Your task to perform on an android device: Play the last video I watched on Youtube Image 0: 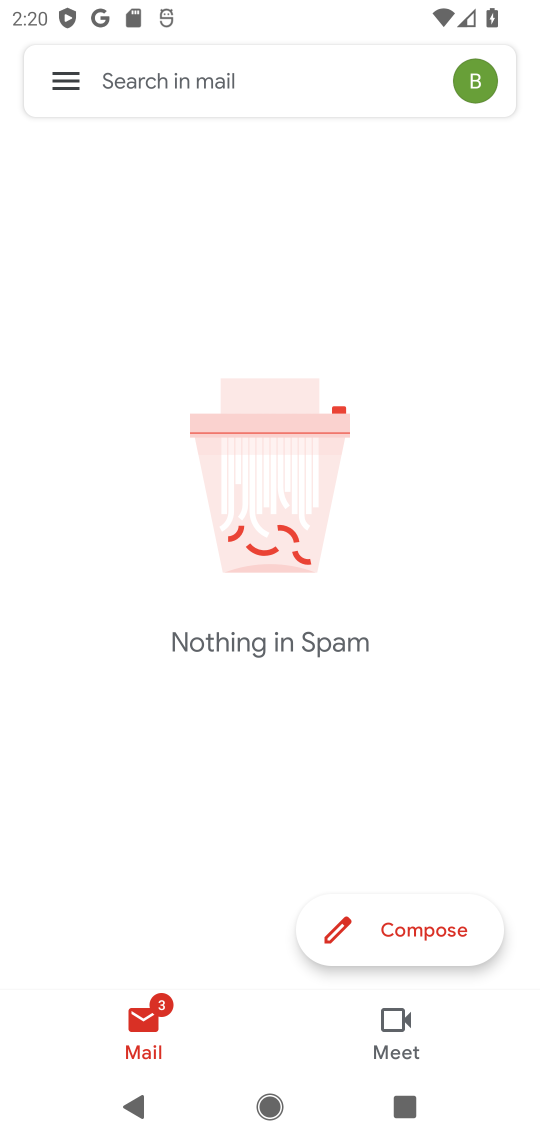
Step 0: press home button
Your task to perform on an android device: Play the last video I watched on Youtube Image 1: 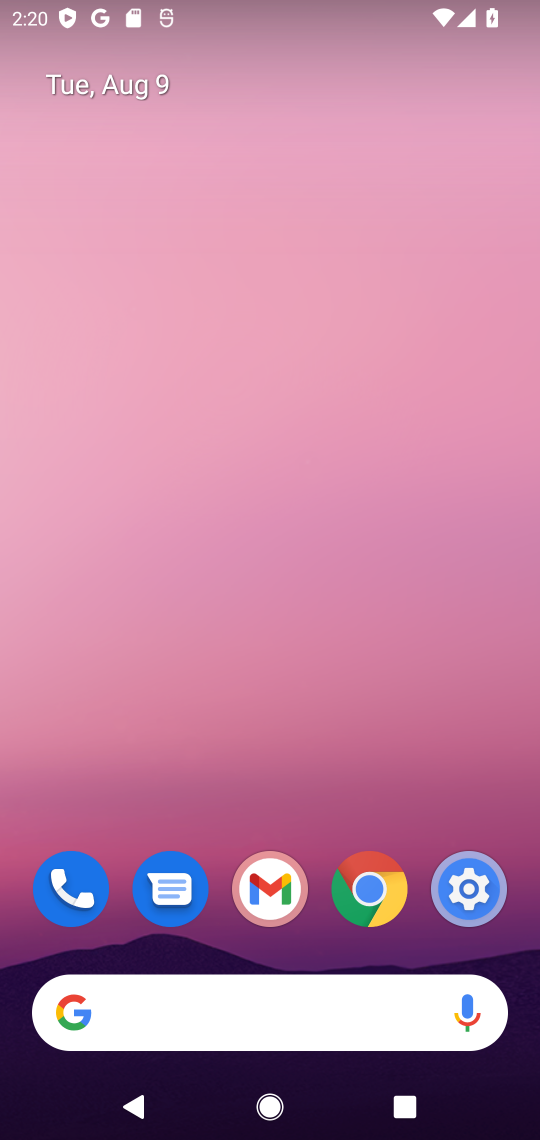
Step 1: drag from (302, 774) to (338, 2)
Your task to perform on an android device: Play the last video I watched on Youtube Image 2: 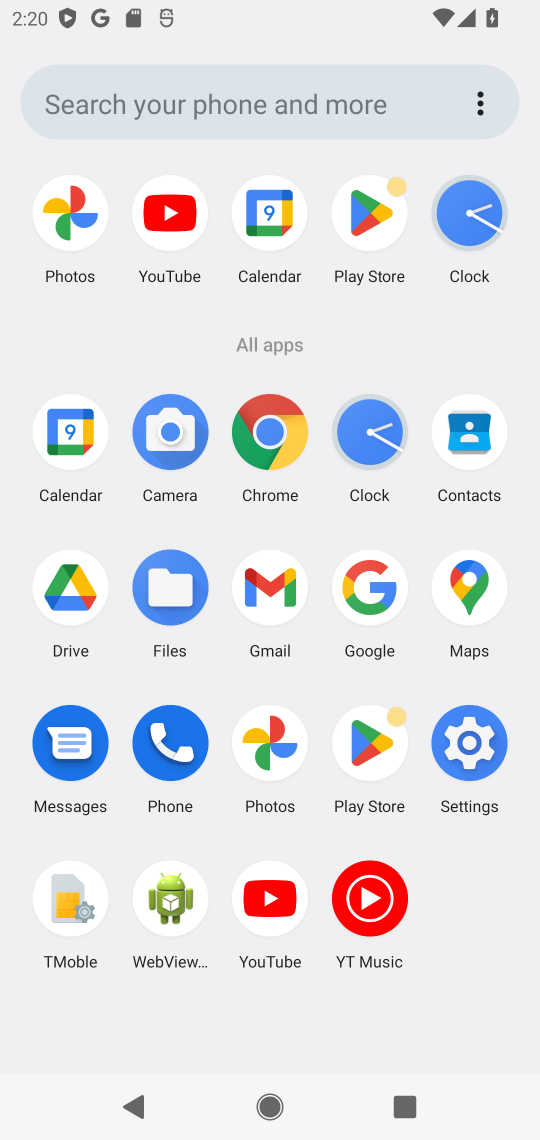
Step 2: click (277, 898)
Your task to perform on an android device: Play the last video I watched on Youtube Image 3: 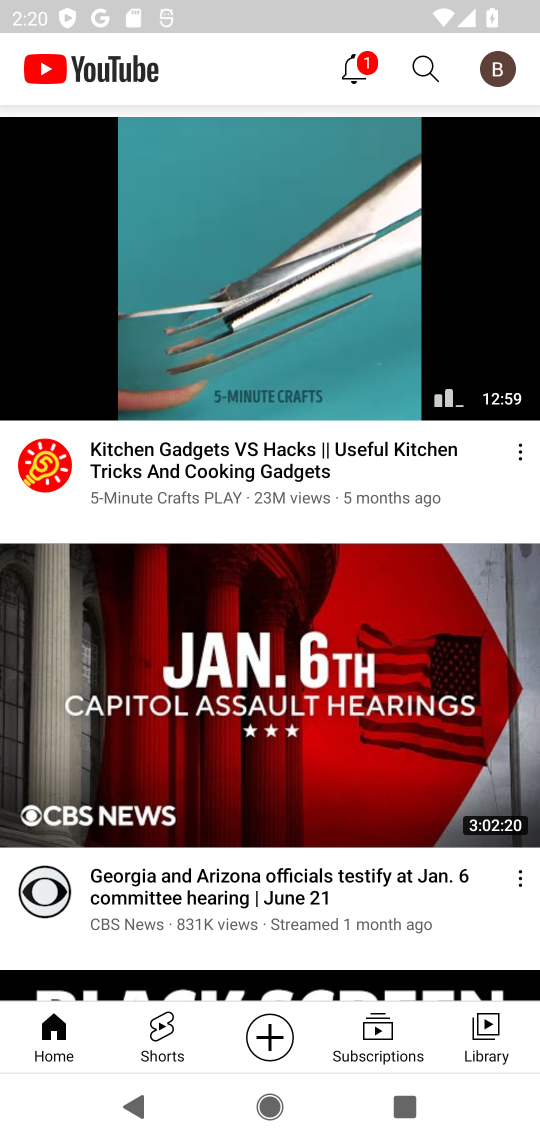
Step 3: click (478, 1031)
Your task to perform on an android device: Play the last video I watched on Youtube Image 4: 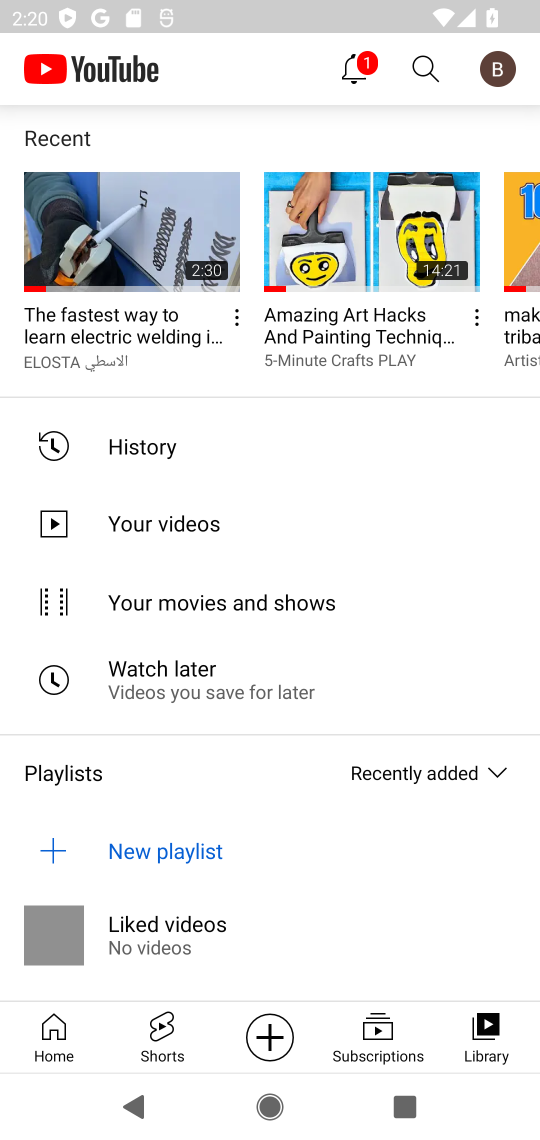
Step 4: click (167, 435)
Your task to perform on an android device: Play the last video I watched on Youtube Image 5: 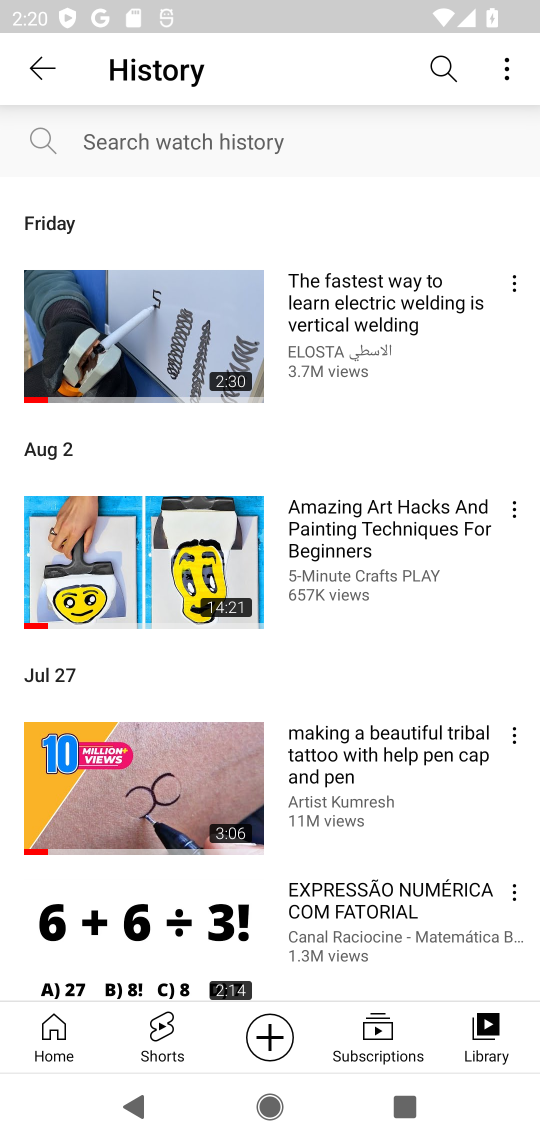
Step 5: click (159, 333)
Your task to perform on an android device: Play the last video I watched on Youtube Image 6: 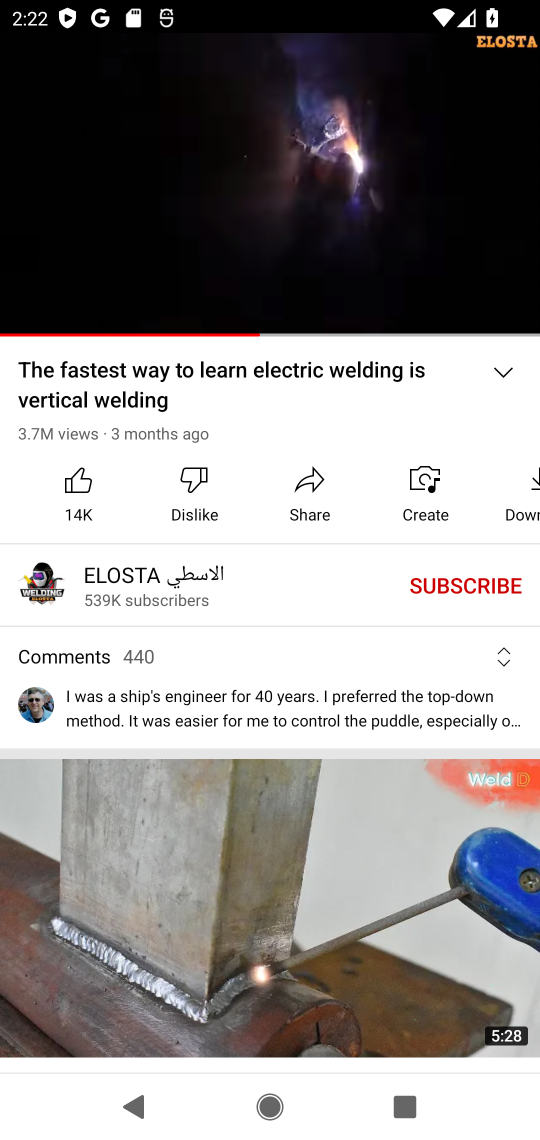
Step 6: task complete